Your task to perform on an android device: What's the weather today? Image 0: 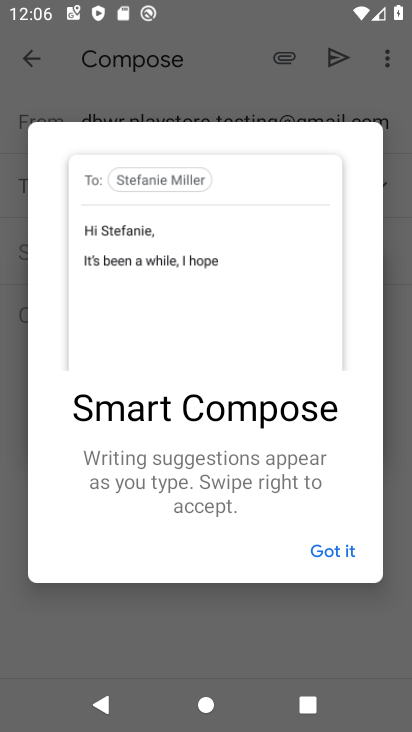
Step 0: press home button
Your task to perform on an android device: What's the weather today? Image 1: 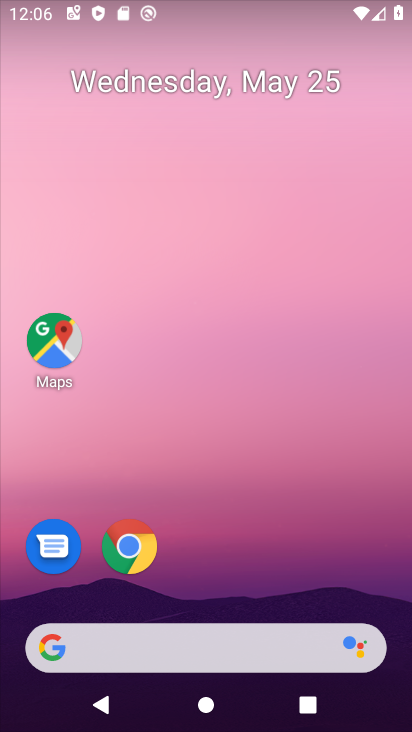
Step 1: drag from (243, 618) to (206, 16)
Your task to perform on an android device: What's the weather today? Image 2: 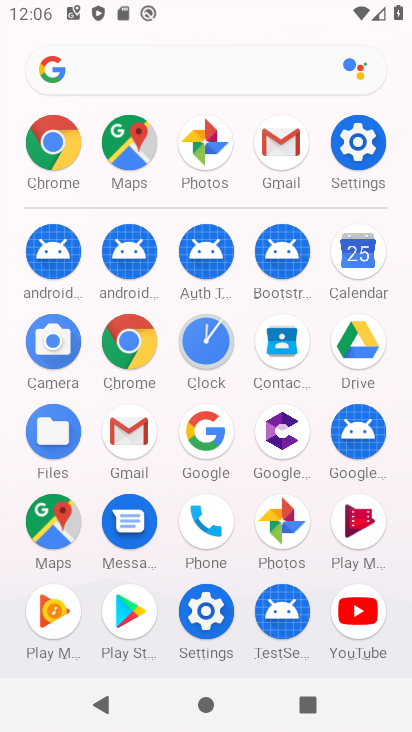
Step 2: click (58, 170)
Your task to perform on an android device: What's the weather today? Image 3: 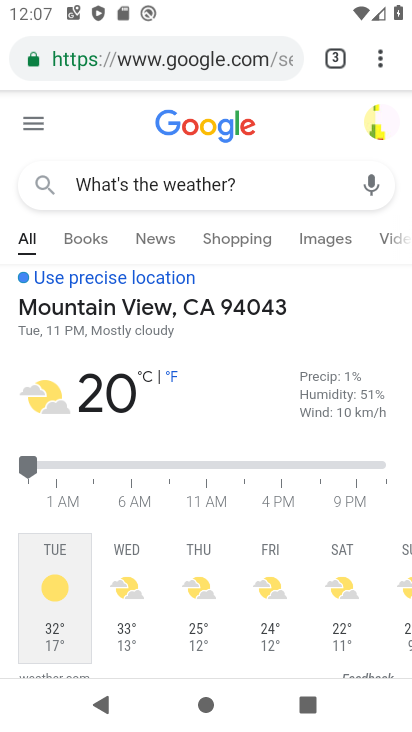
Step 3: task complete